Your task to perform on an android device: Find coffee shops on Maps Image 0: 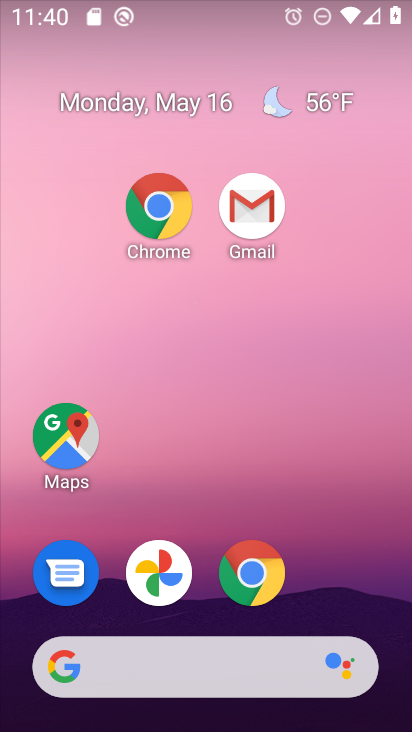
Step 0: drag from (391, 640) to (231, 77)
Your task to perform on an android device: Find coffee shops on Maps Image 1: 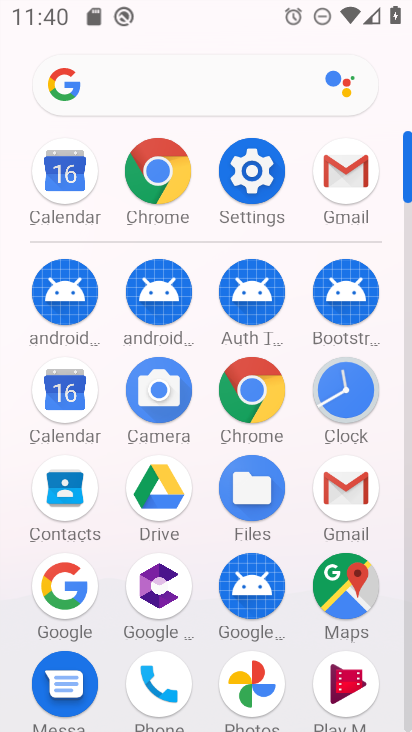
Step 1: click (348, 596)
Your task to perform on an android device: Find coffee shops on Maps Image 2: 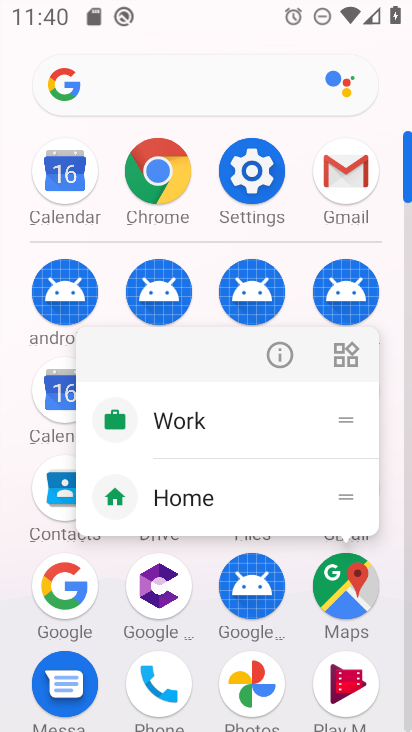
Step 2: click (342, 579)
Your task to perform on an android device: Find coffee shops on Maps Image 3: 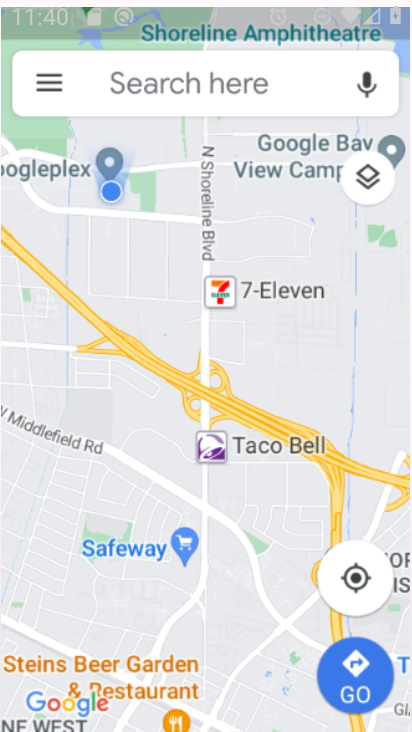
Step 3: click (340, 576)
Your task to perform on an android device: Find coffee shops on Maps Image 4: 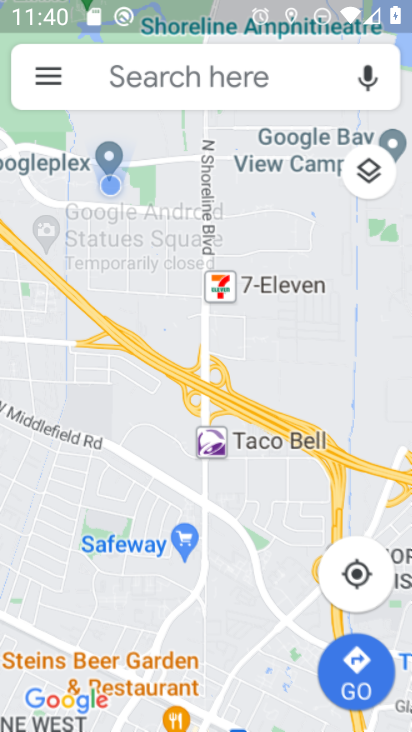
Step 4: click (336, 569)
Your task to perform on an android device: Find coffee shops on Maps Image 5: 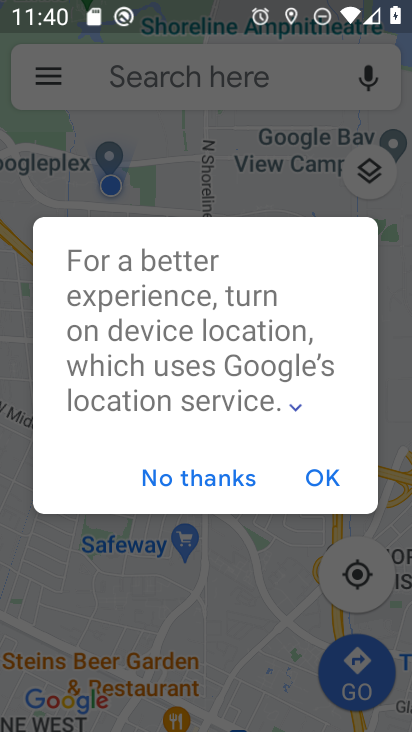
Step 5: click (315, 469)
Your task to perform on an android device: Find coffee shops on Maps Image 6: 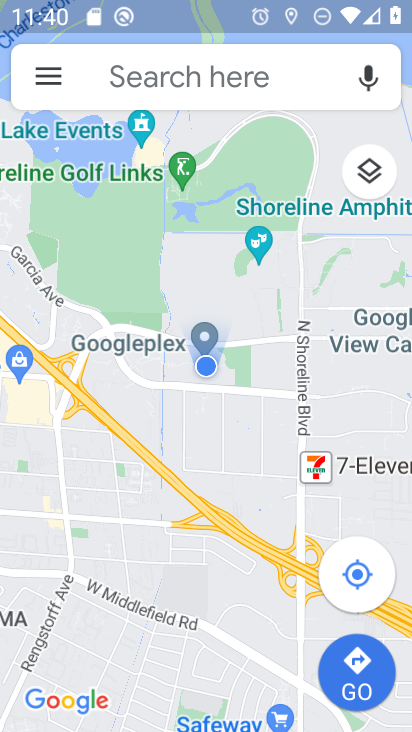
Step 6: click (111, 80)
Your task to perform on an android device: Find coffee shops on Maps Image 7: 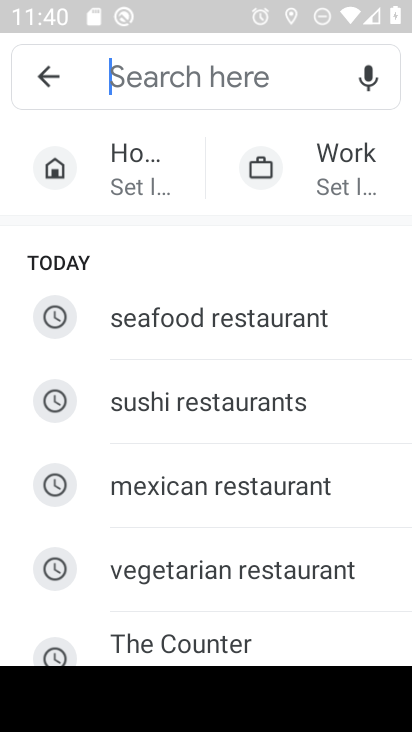
Step 7: type "coffee"
Your task to perform on an android device: Find coffee shops on Maps Image 8: 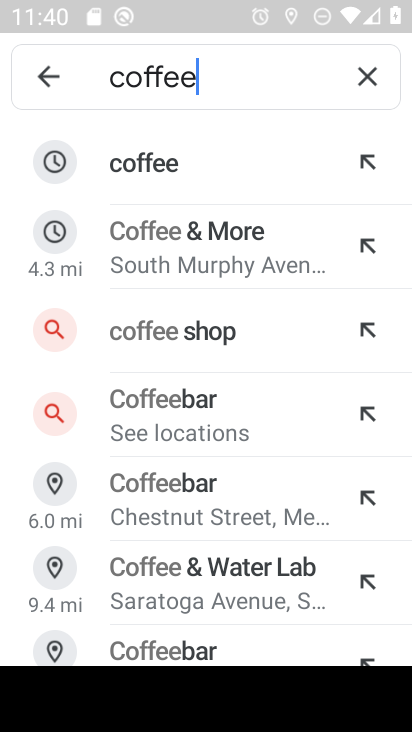
Step 8: click (130, 154)
Your task to perform on an android device: Find coffee shops on Maps Image 9: 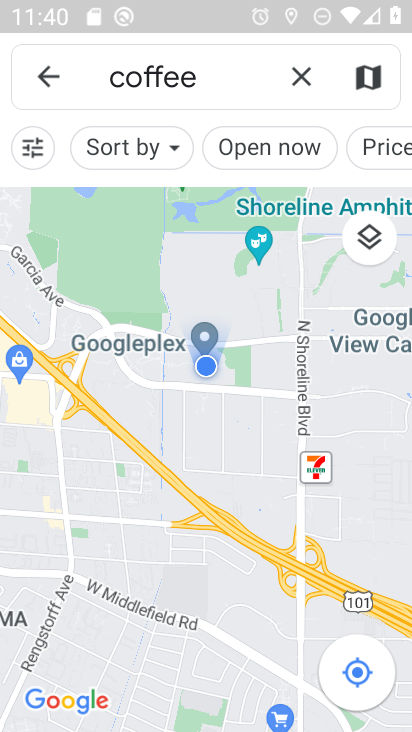
Step 9: task complete